Your task to perform on an android device: What's the weather going to be this weekend? Image 0: 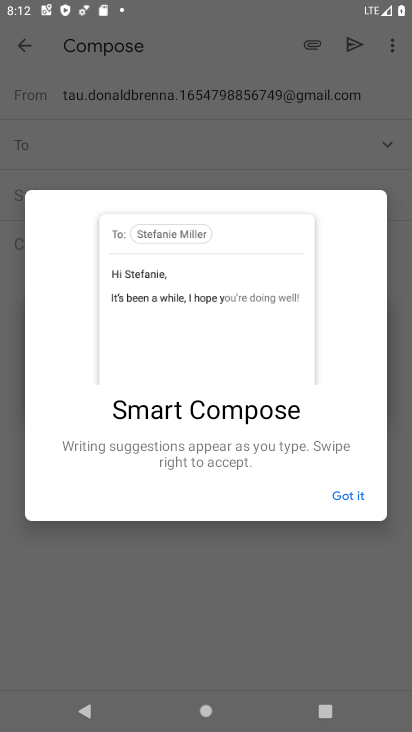
Step 0: press home button
Your task to perform on an android device: What's the weather going to be this weekend? Image 1: 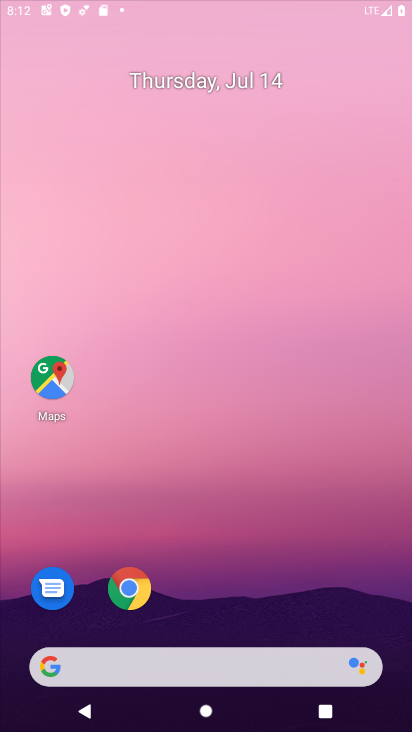
Step 1: drag from (391, 627) to (242, 82)
Your task to perform on an android device: What's the weather going to be this weekend? Image 2: 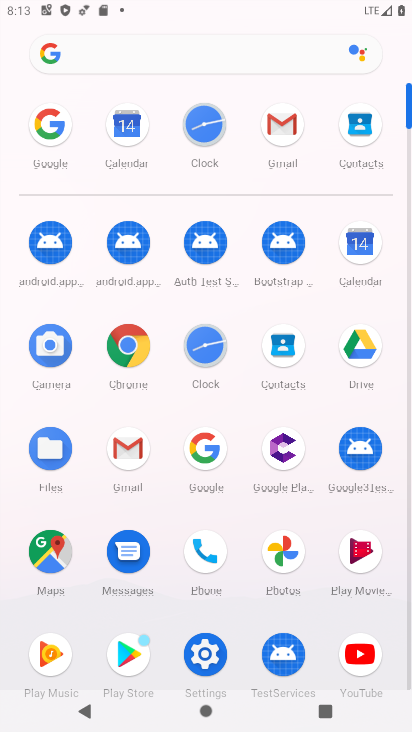
Step 2: click (212, 459)
Your task to perform on an android device: What's the weather going to be this weekend? Image 3: 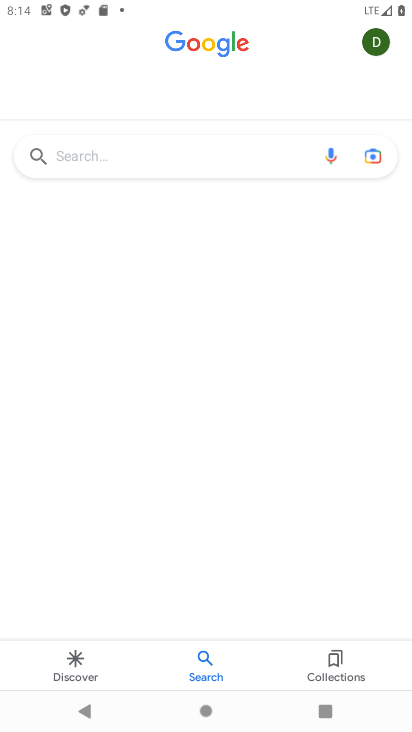
Step 3: click (166, 157)
Your task to perform on an android device: What's the weather going to be this weekend? Image 4: 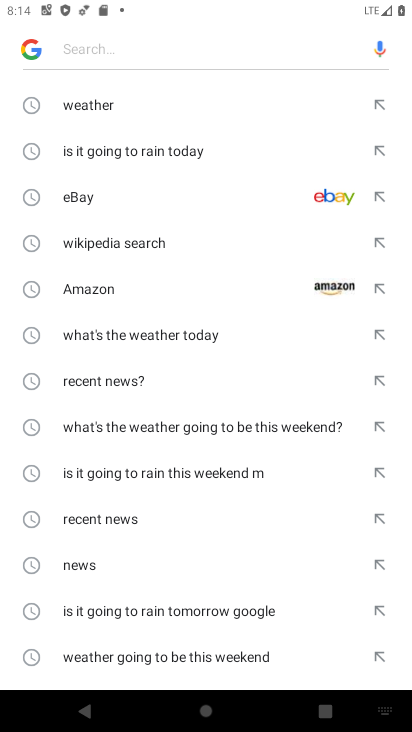
Step 4: click (256, 436)
Your task to perform on an android device: What's the weather going to be this weekend? Image 5: 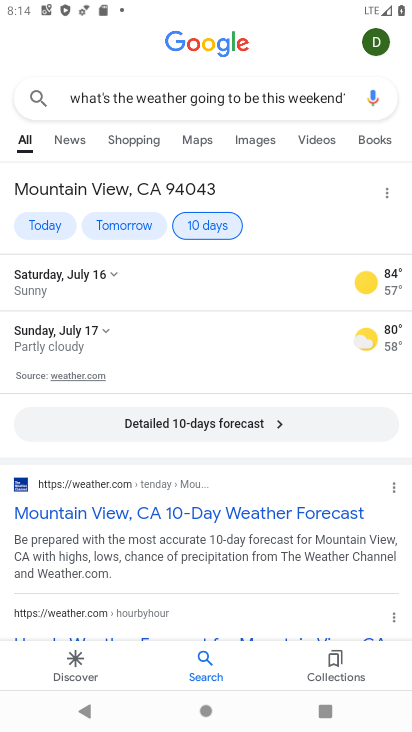
Step 5: task complete